Your task to perform on an android device: Do I have any events tomorrow? Image 0: 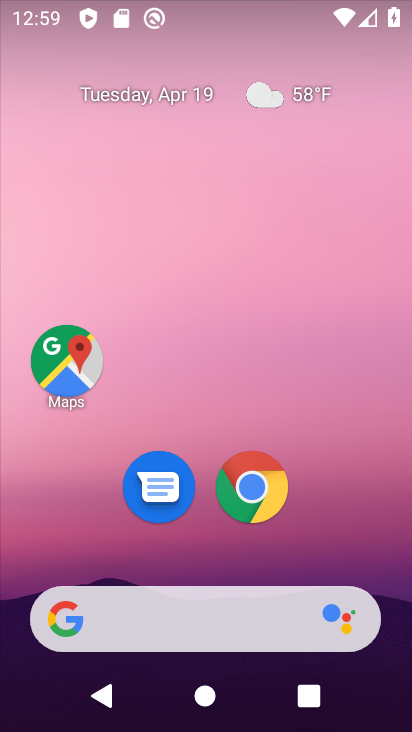
Step 0: drag from (206, 723) to (242, 30)
Your task to perform on an android device: Do I have any events tomorrow? Image 1: 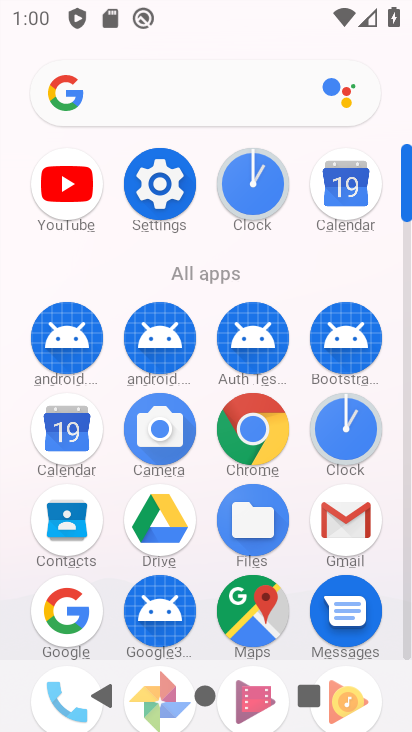
Step 1: click (64, 434)
Your task to perform on an android device: Do I have any events tomorrow? Image 2: 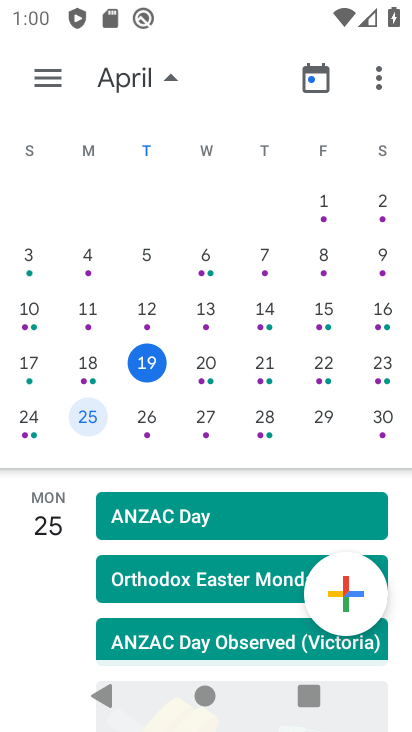
Step 2: click (209, 356)
Your task to perform on an android device: Do I have any events tomorrow? Image 3: 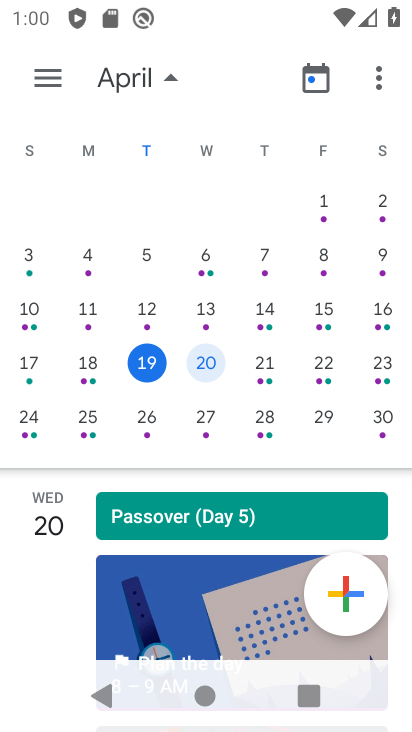
Step 3: task complete